Your task to perform on an android device: make emails show in primary in the gmail app Image 0: 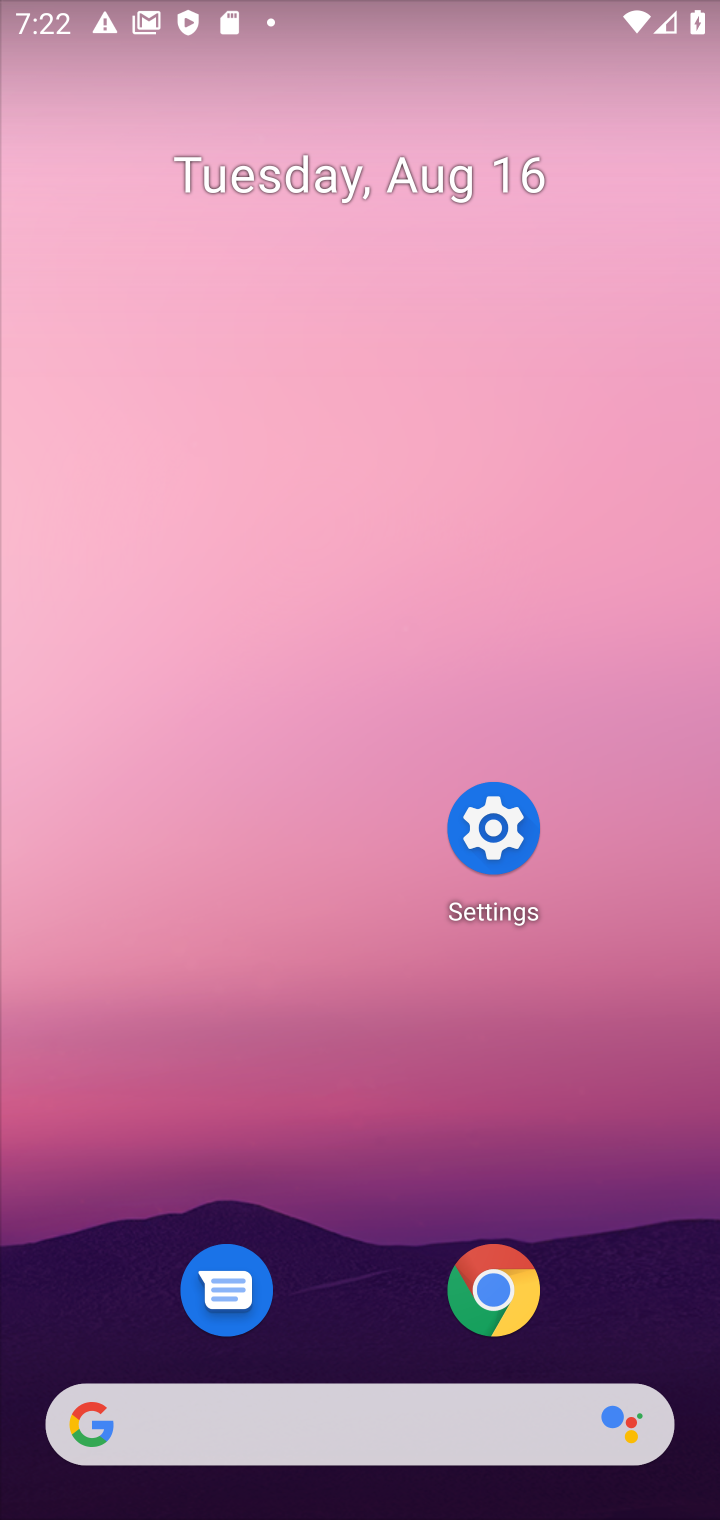
Step 0: drag from (315, 1423) to (435, 120)
Your task to perform on an android device: make emails show in primary in the gmail app Image 1: 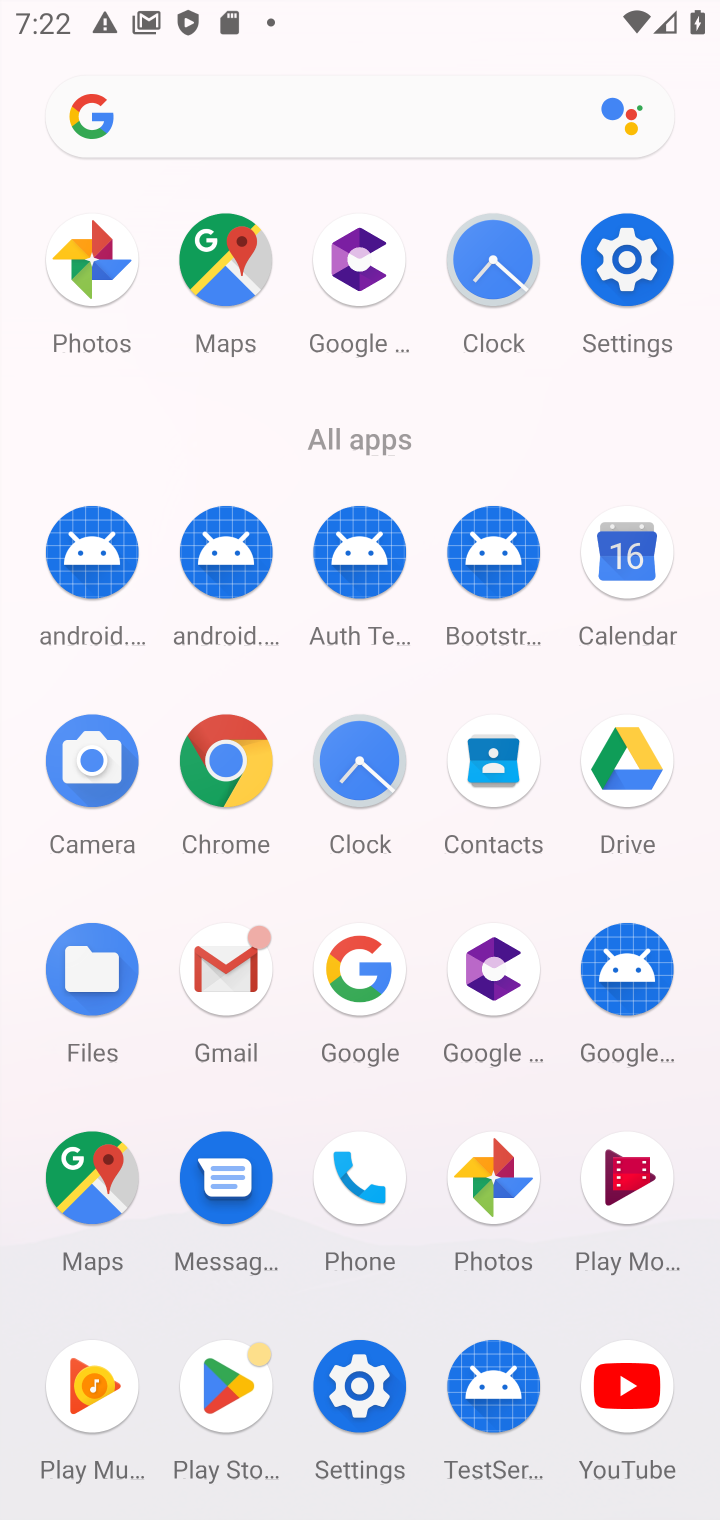
Step 1: click (224, 974)
Your task to perform on an android device: make emails show in primary in the gmail app Image 2: 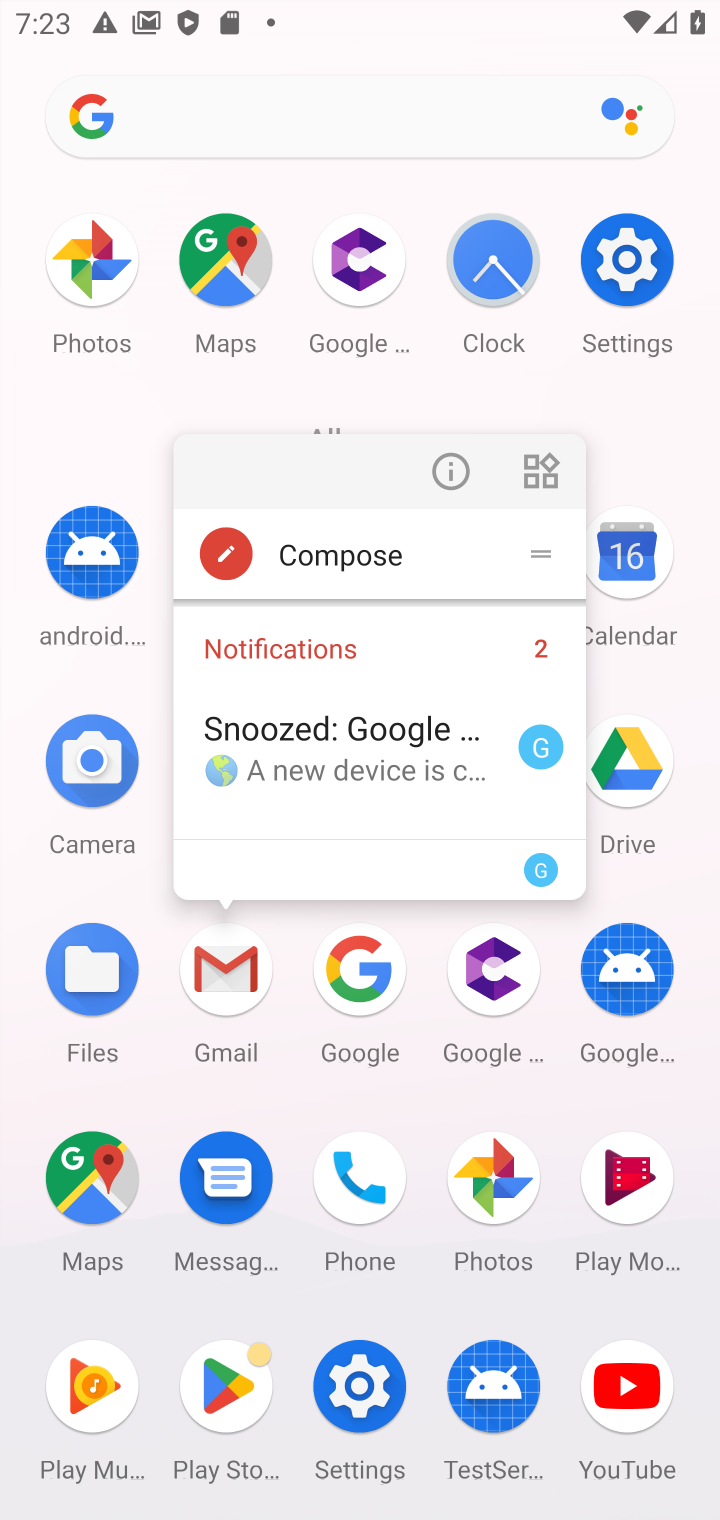
Step 2: click (224, 974)
Your task to perform on an android device: make emails show in primary in the gmail app Image 3: 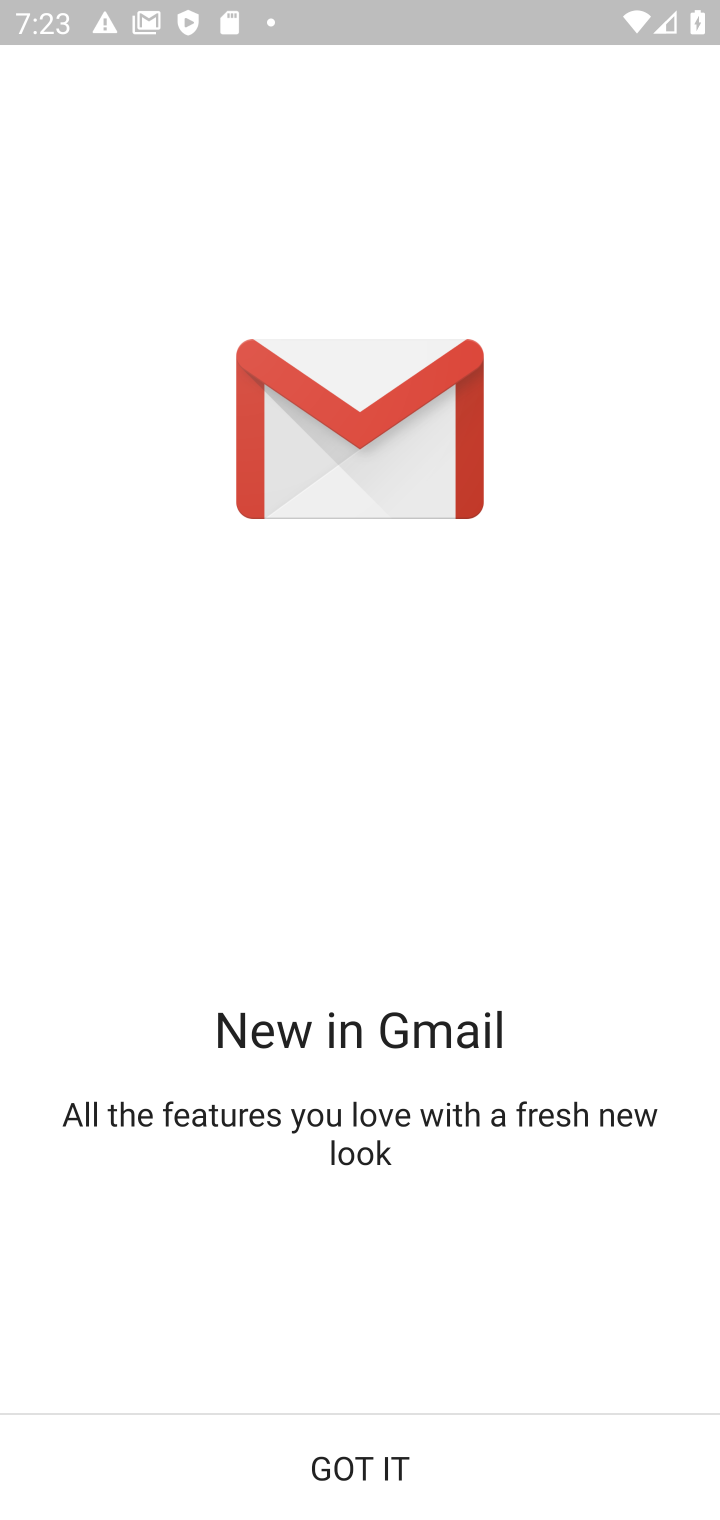
Step 3: click (358, 1454)
Your task to perform on an android device: make emails show in primary in the gmail app Image 4: 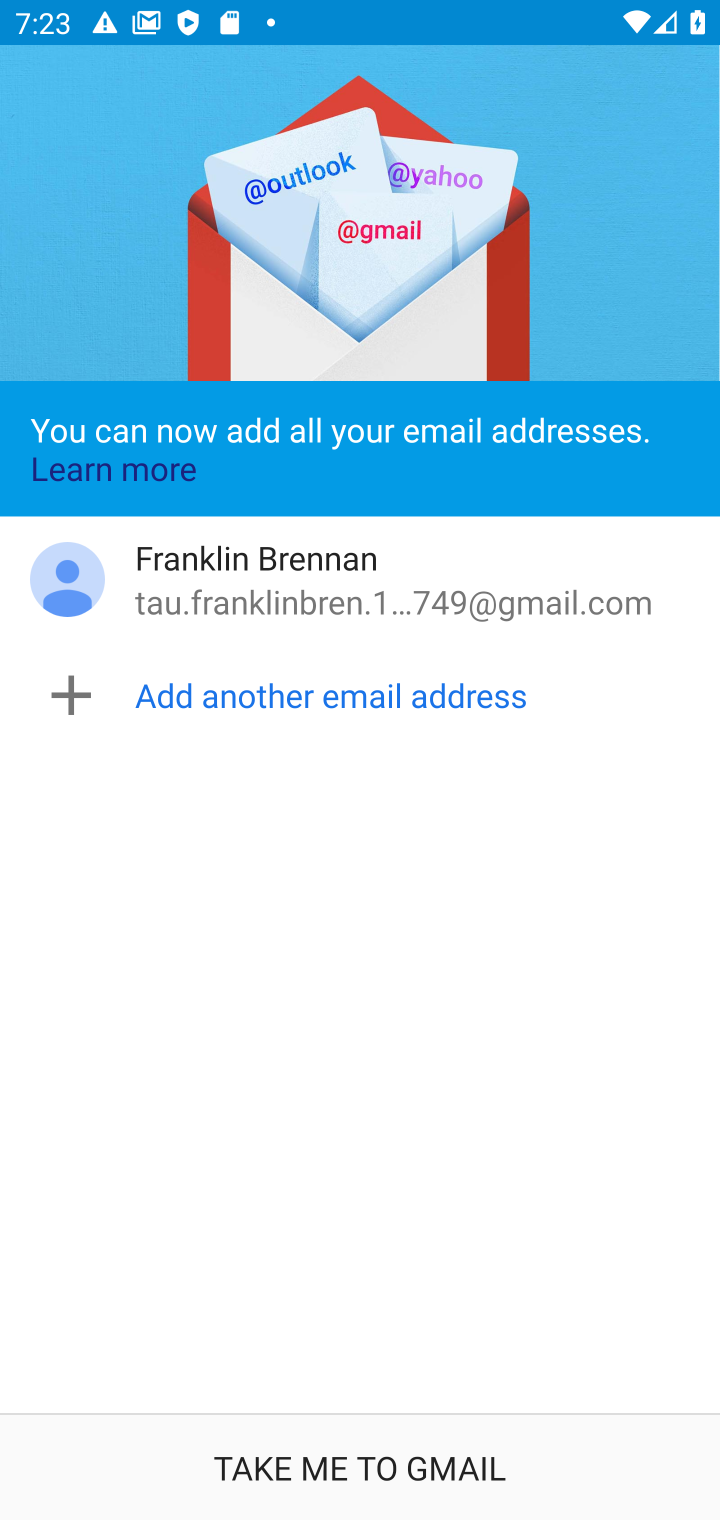
Step 4: click (358, 1454)
Your task to perform on an android device: make emails show in primary in the gmail app Image 5: 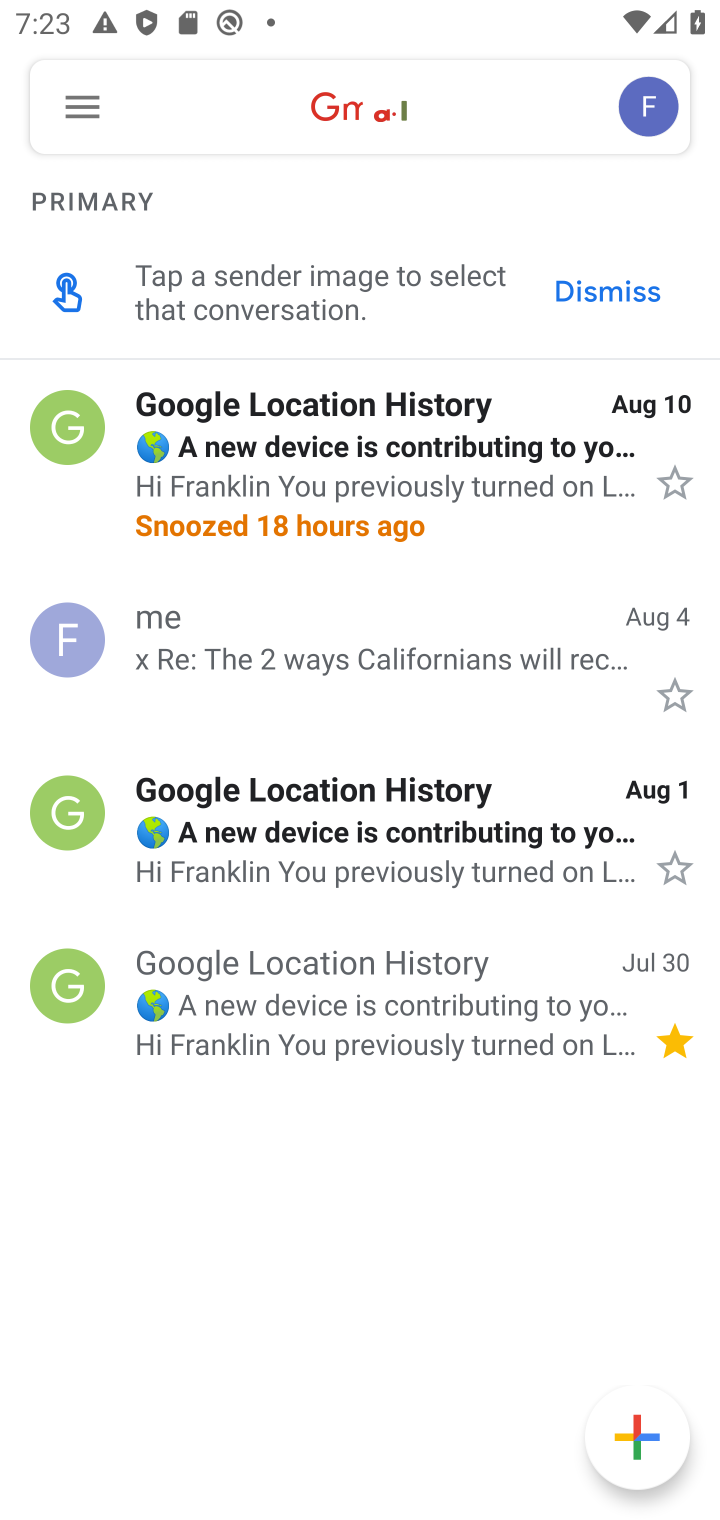
Step 5: click (93, 97)
Your task to perform on an android device: make emails show in primary in the gmail app Image 6: 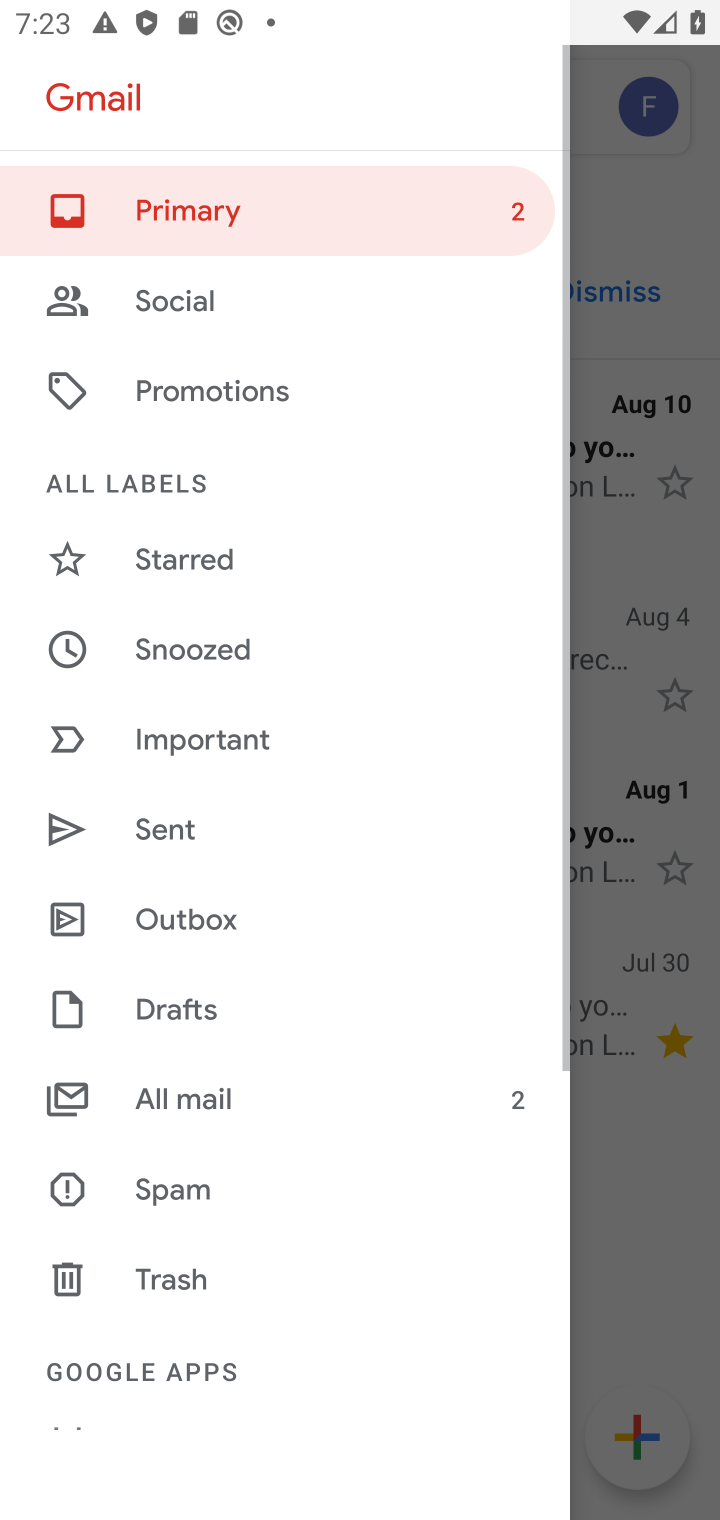
Step 6: drag from (254, 1367) to (362, 481)
Your task to perform on an android device: make emails show in primary in the gmail app Image 7: 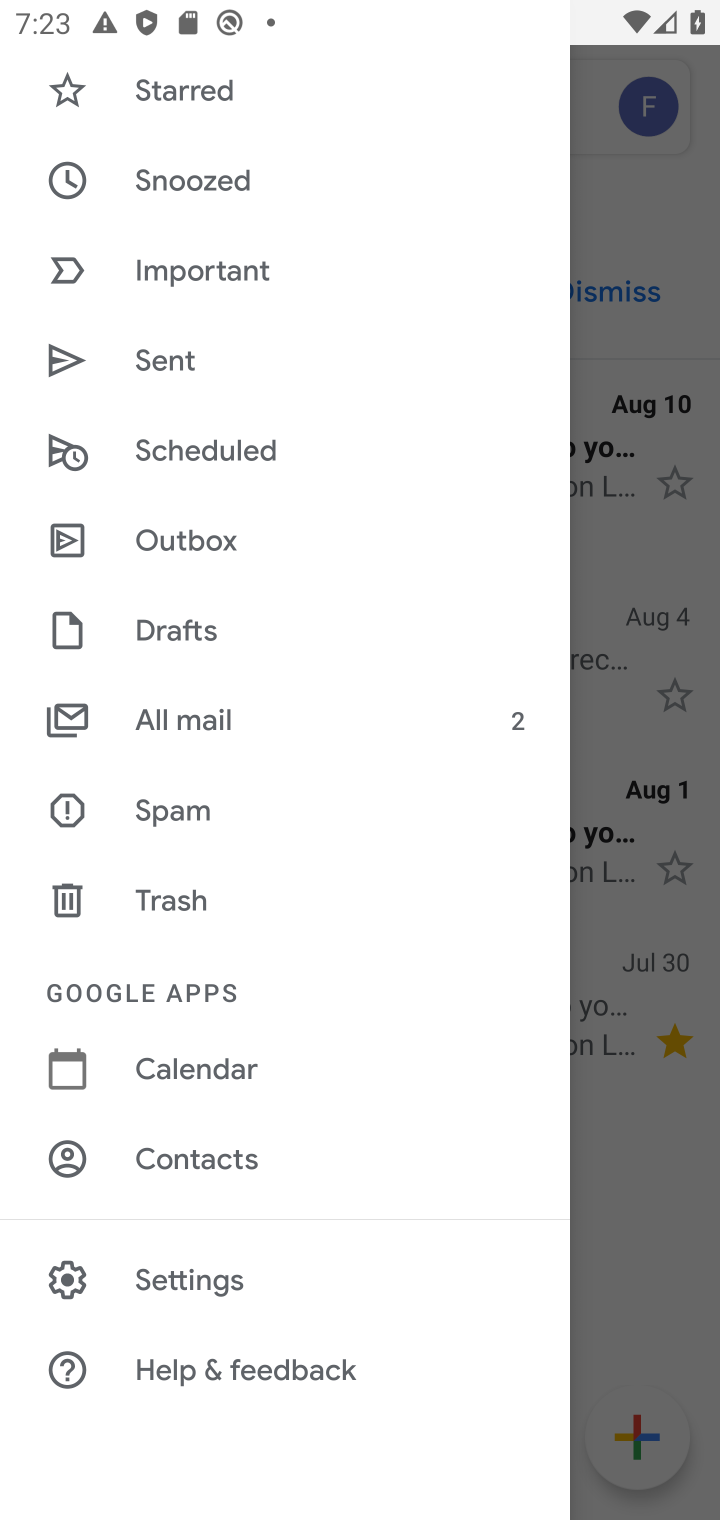
Step 7: click (174, 1283)
Your task to perform on an android device: make emails show in primary in the gmail app Image 8: 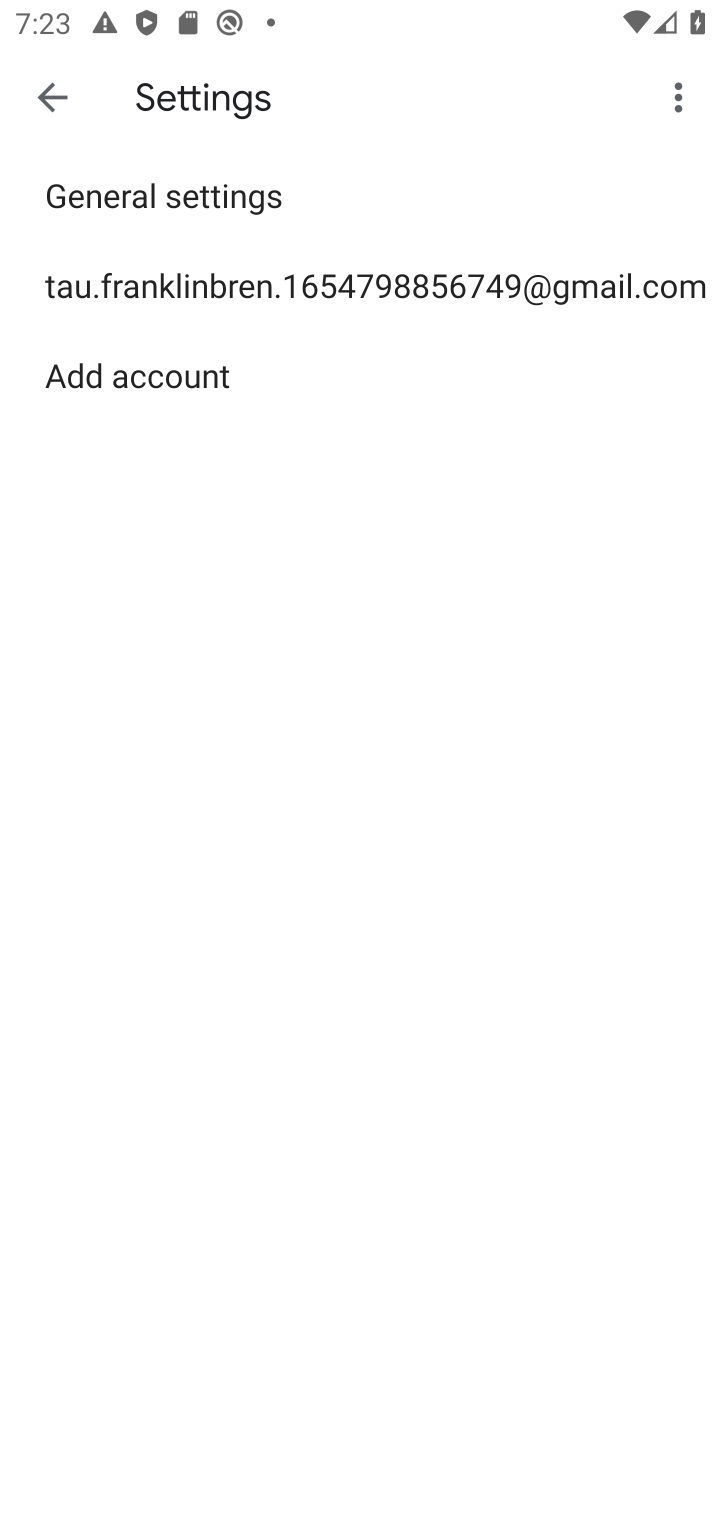
Step 8: click (417, 286)
Your task to perform on an android device: make emails show in primary in the gmail app Image 9: 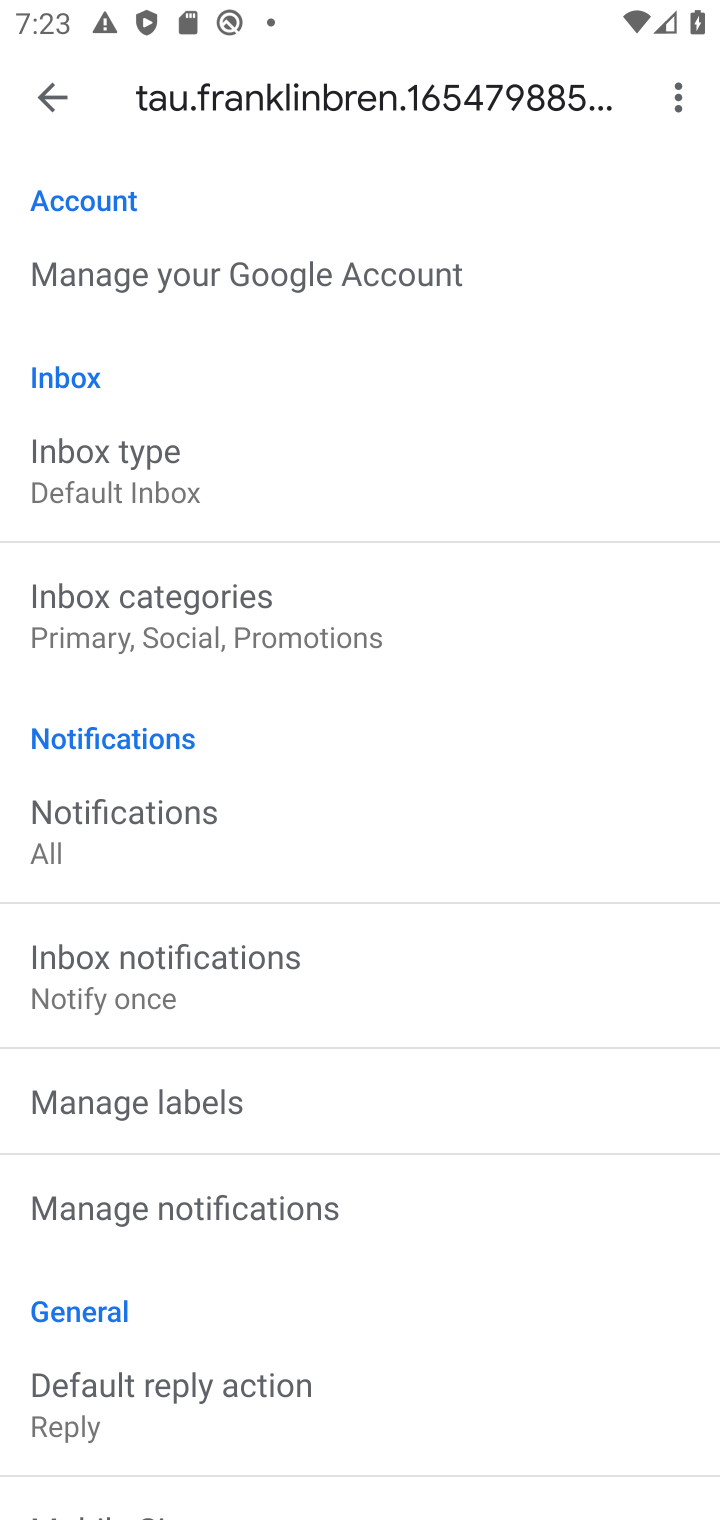
Step 9: click (123, 475)
Your task to perform on an android device: make emails show in primary in the gmail app Image 10: 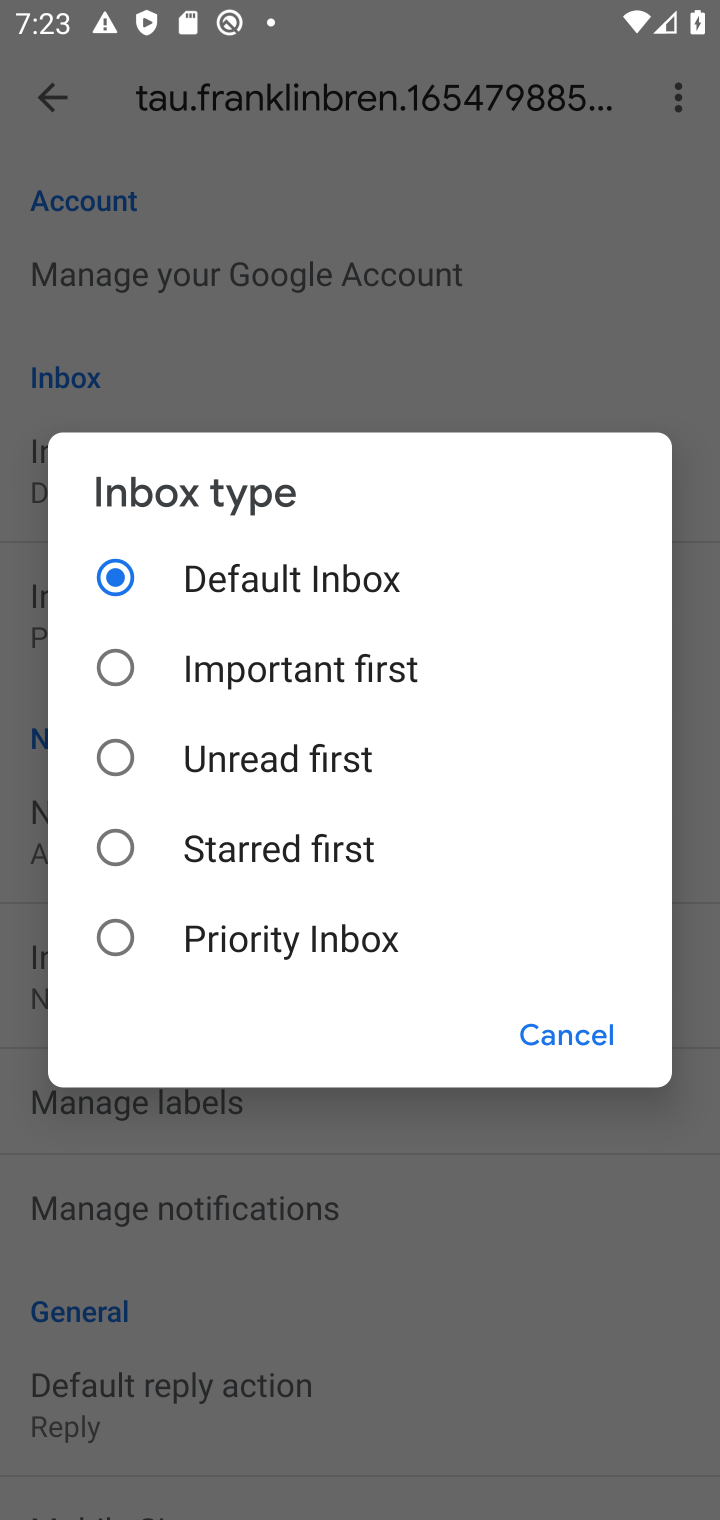
Step 10: click (588, 1038)
Your task to perform on an android device: make emails show in primary in the gmail app Image 11: 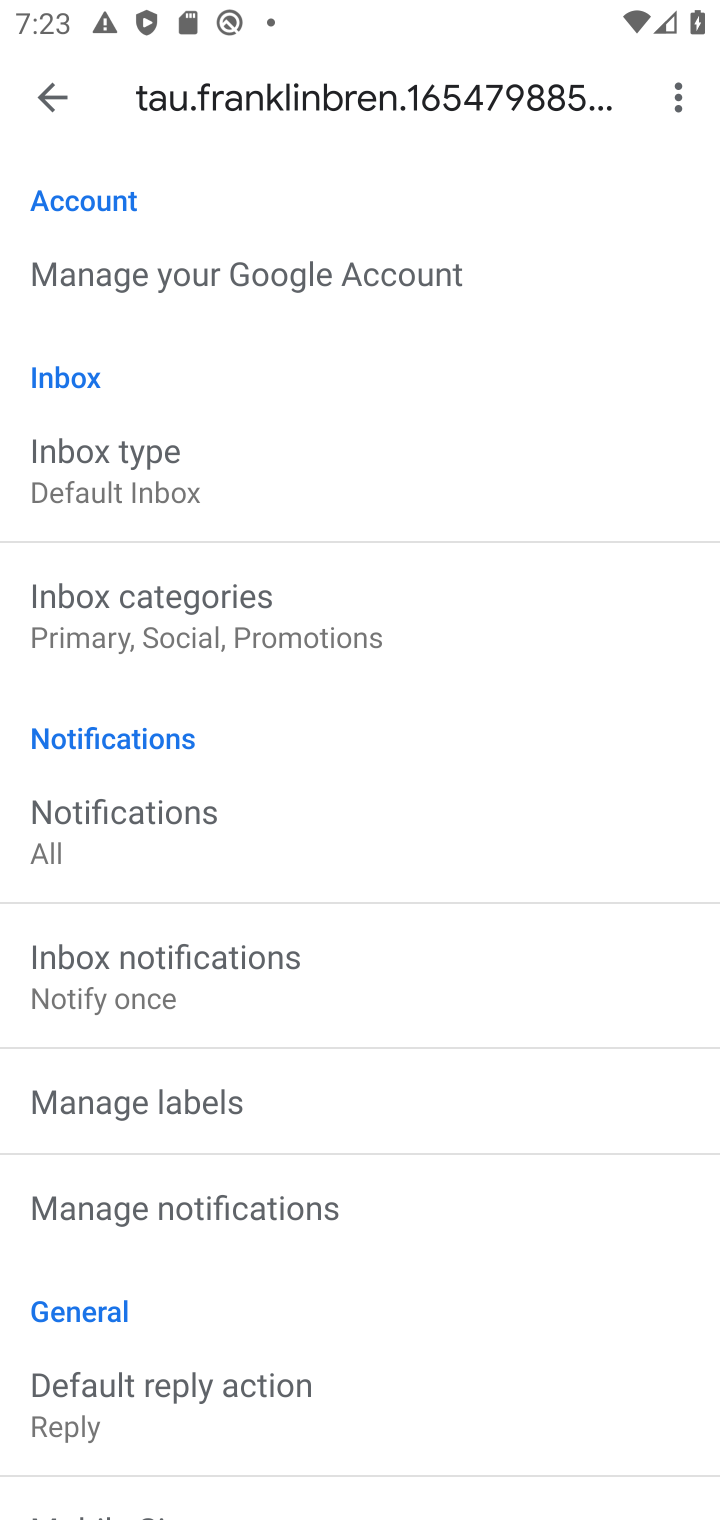
Step 11: click (166, 606)
Your task to perform on an android device: make emails show in primary in the gmail app Image 12: 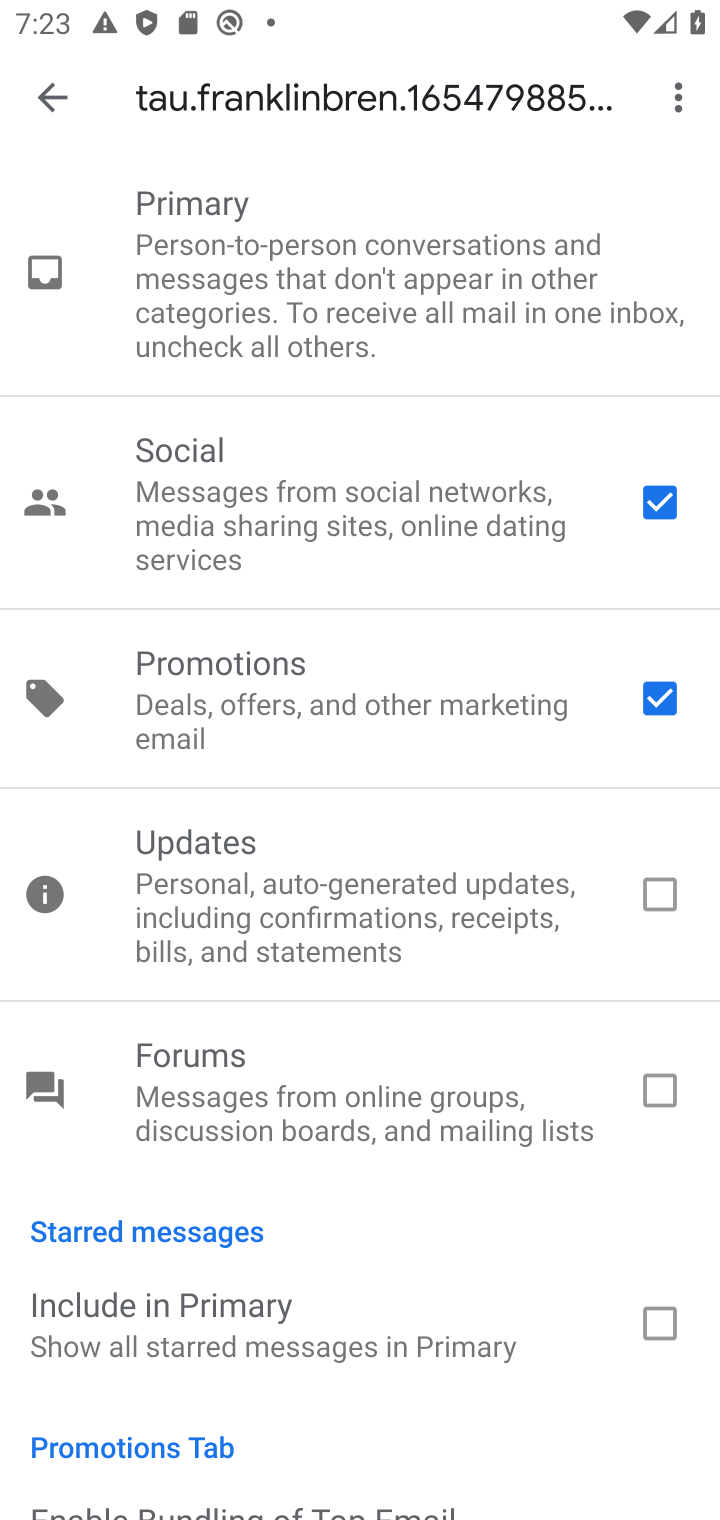
Step 12: click (673, 503)
Your task to perform on an android device: make emails show in primary in the gmail app Image 13: 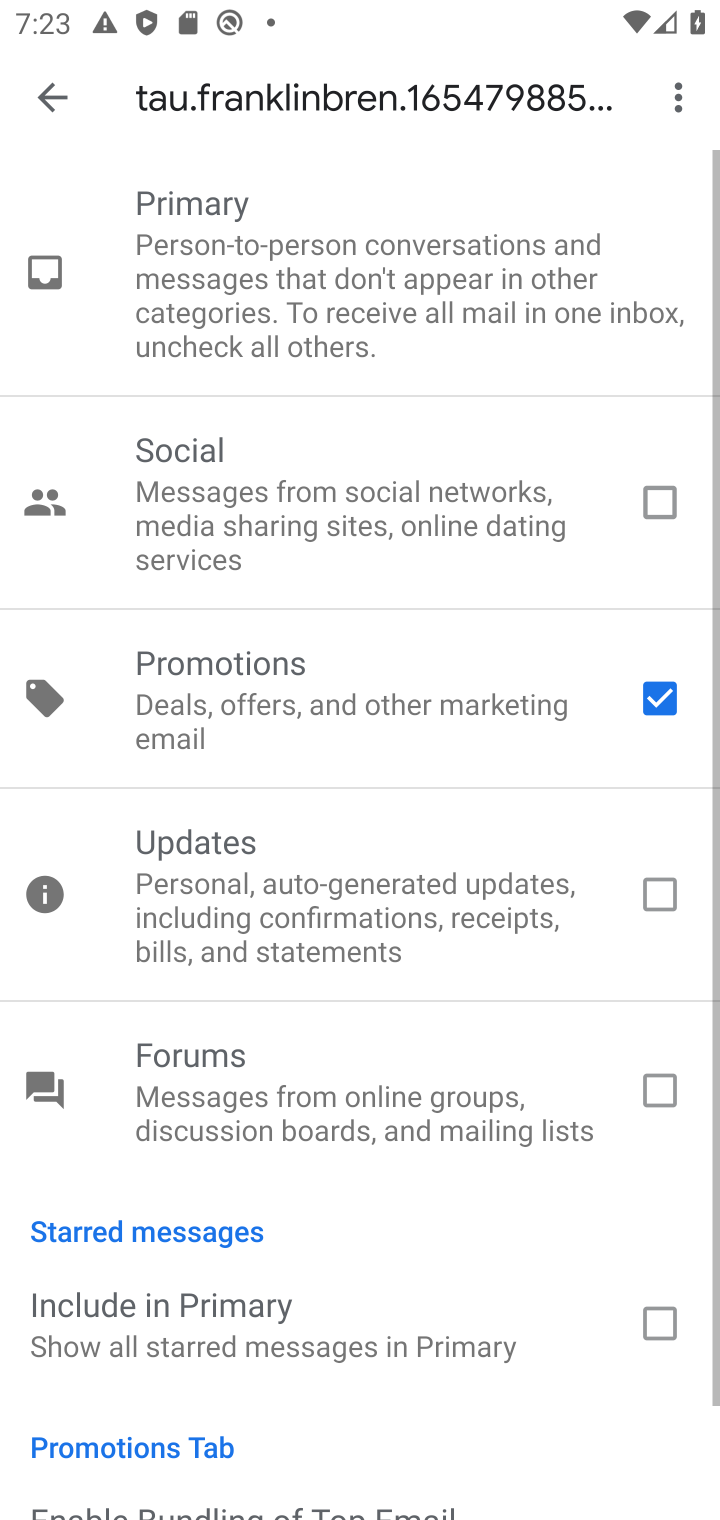
Step 13: click (662, 706)
Your task to perform on an android device: make emails show in primary in the gmail app Image 14: 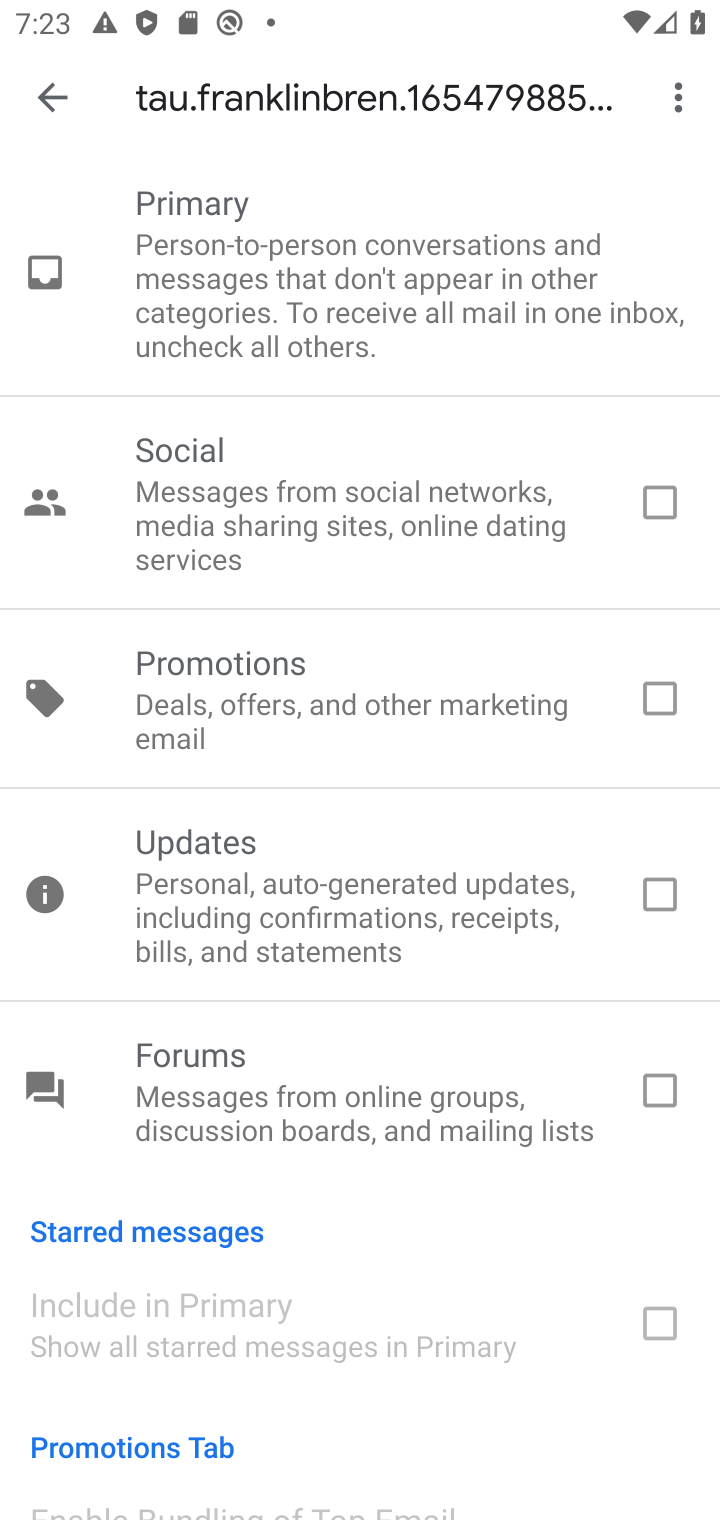
Step 14: task complete